Your task to perform on an android device: turn notification dots off Image 0: 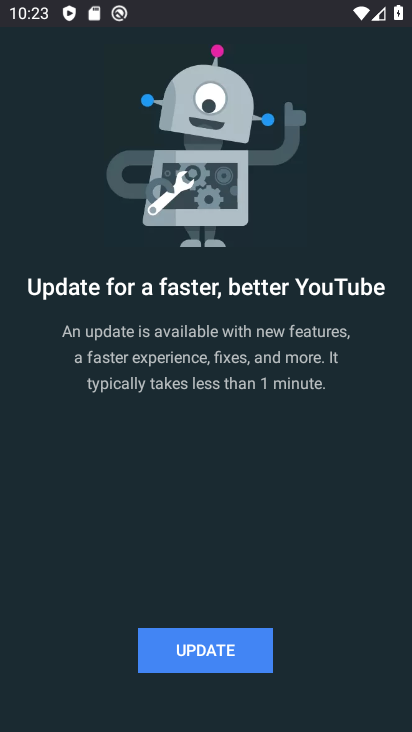
Step 0: press home button
Your task to perform on an android device: turn notification dots off Image 1: 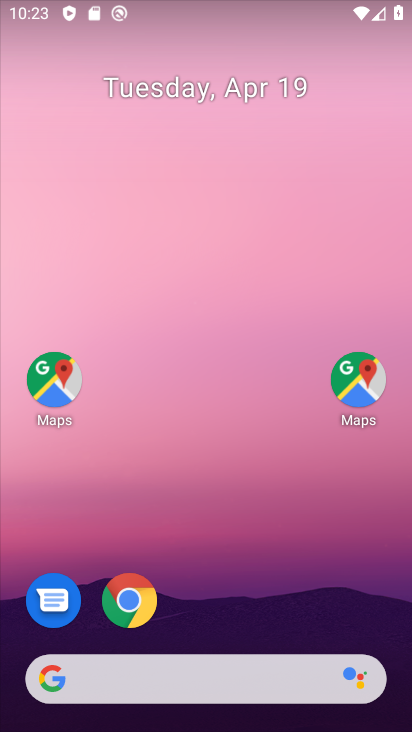
Step 1: drag from (263, 515) to (313, 219)
Your task to perform on an android device: turn notification dots off Image 2: 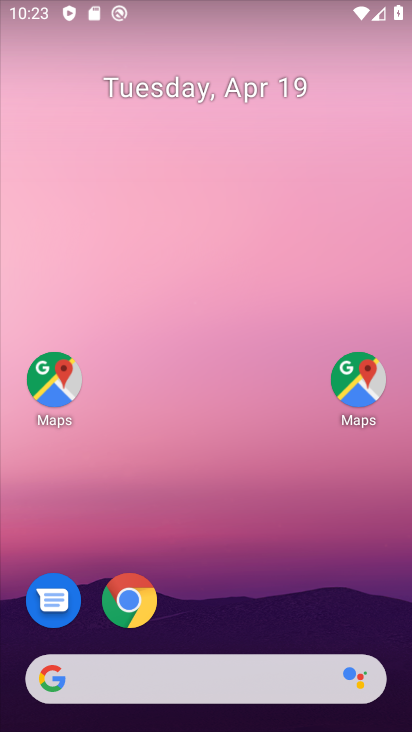
Step 2: drag from (266, 653) to (315, 21)
Your task to perform on an android device: turn notification dots off Image 3: 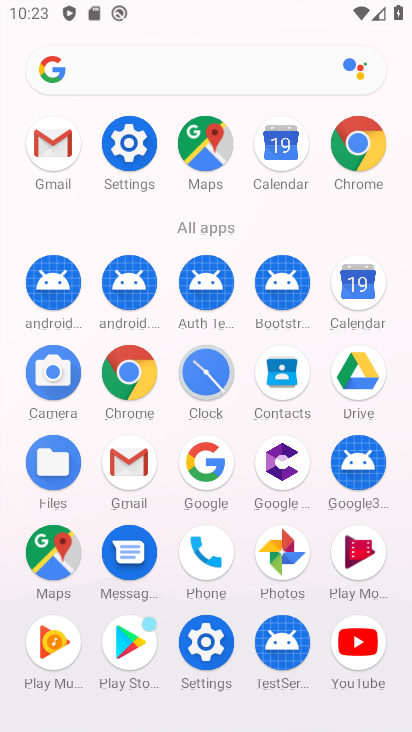
Step 3: click (225, 650)
Your task to perform on an android device: turn notification dots off Image 4: 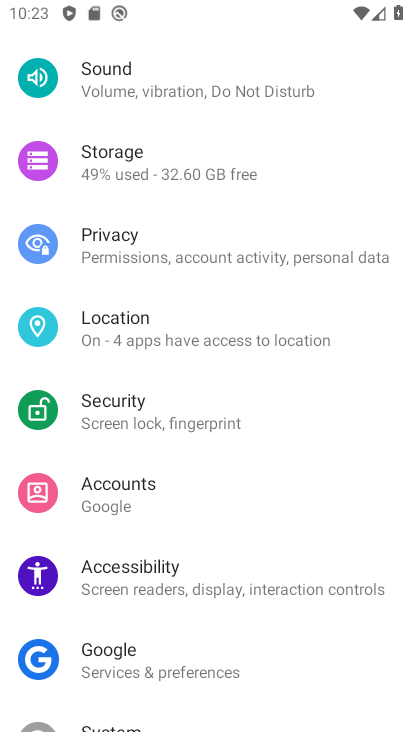
Step 4: drag from (281, 690) to (267, 726)
Your task to perform on an android device: turn notification dots off Image 5: 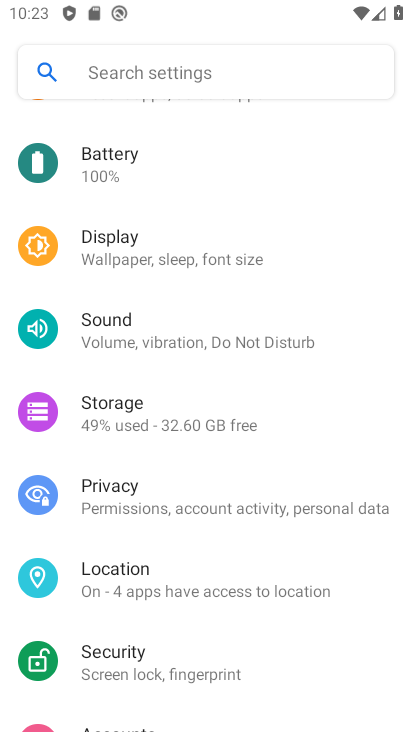
Step 5: drag from (210, 229) to (255, 620)
Your task to perform on an android device: turn notification dots off Image 6: 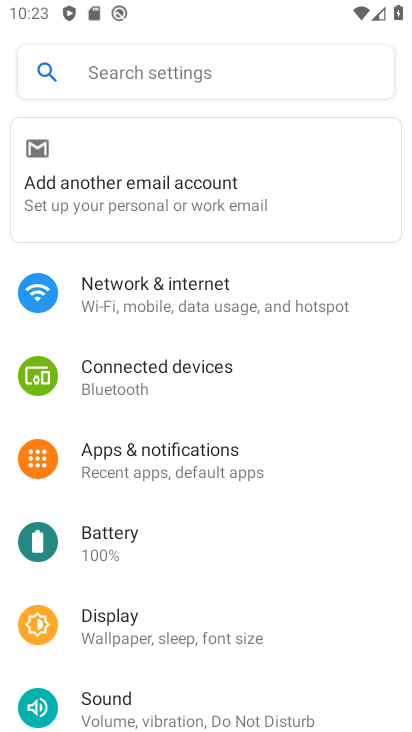
Step 6: click (166, 454)
Your task to perform on an android device: turn notification dots off Image 7: 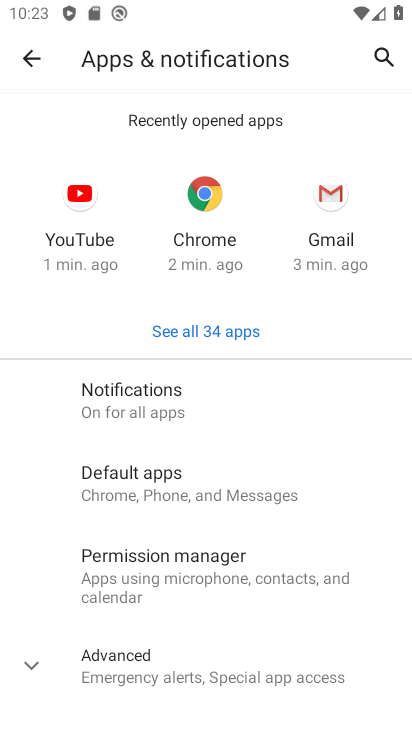
Step 7: drag from (247, 664) to (269, 343)
Your task to perform on an android device: turn notification dots off Image 8: 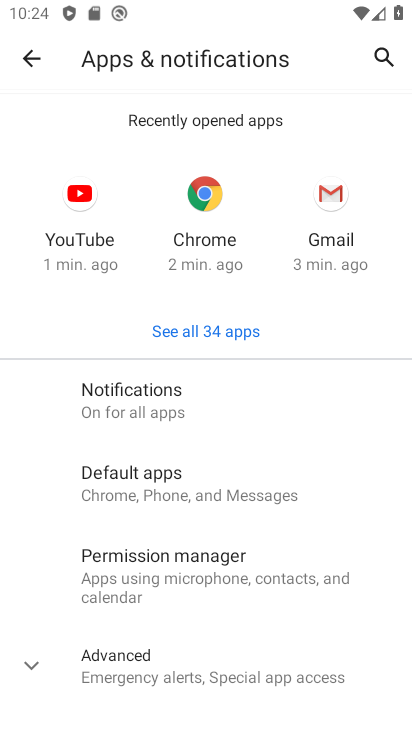
Step 8: click (171, 677)
Your task to perform on an android device: turn notification dots off Image 9: 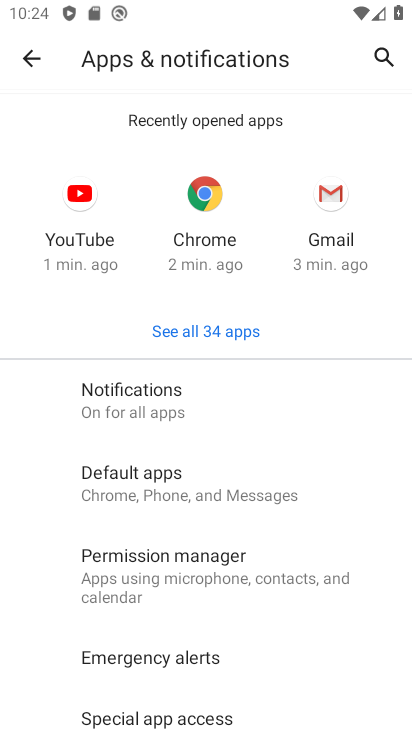
Step 9: drag from (248, 646) to (228, 423)
Your task to perform on an android device: turn notification dots off Image 10: 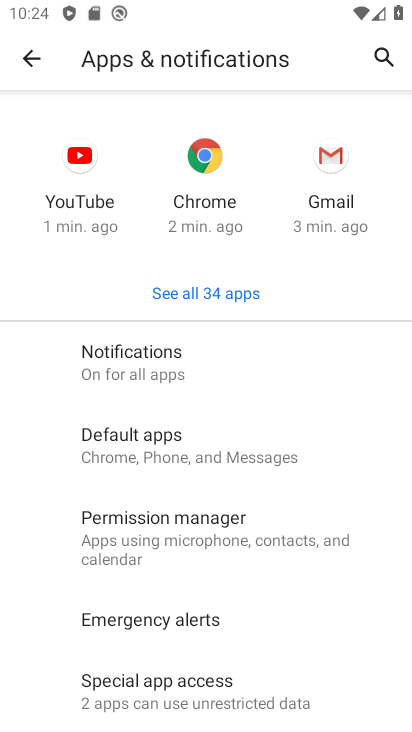
Step 10: click (180, 360)
Your task to perform on an android device: turn notification dots off Image 11: 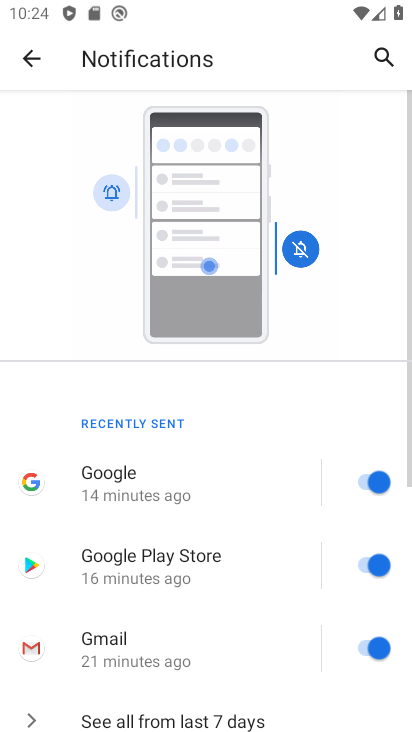
Step 11: drag from (247, 678) to (251, 263)
Your task to perform on an android device: turn notification dots off Image 12: 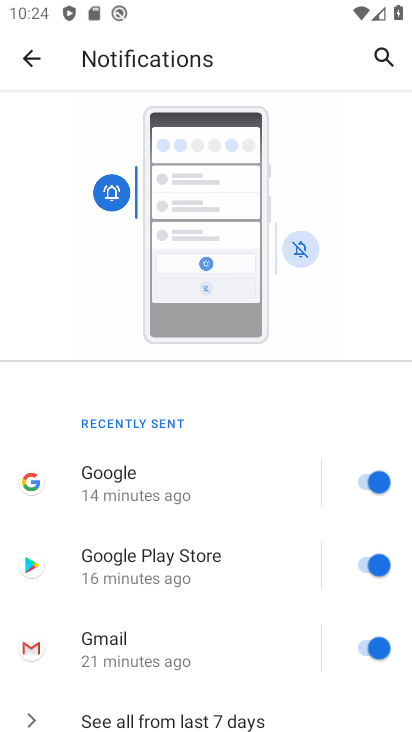
Step 12: drag from (211, 713) to (174, 347)
Your task to perform on an android device: turn notification dots off Image 13: 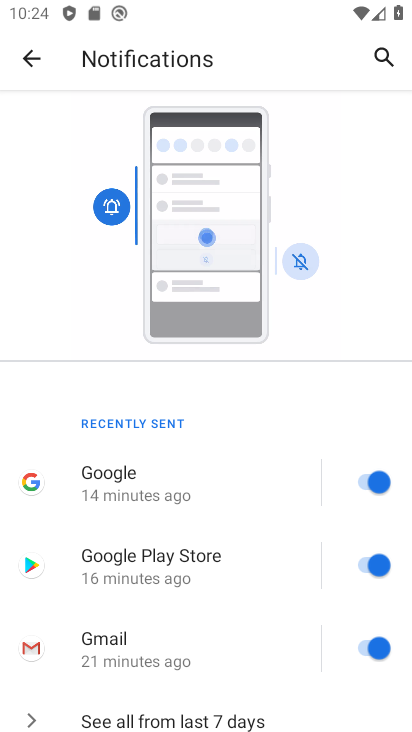
Step 13: drag from (307, 697) to (279, 204)
Your task to perform on an android device: turn notification dots off Image 14: 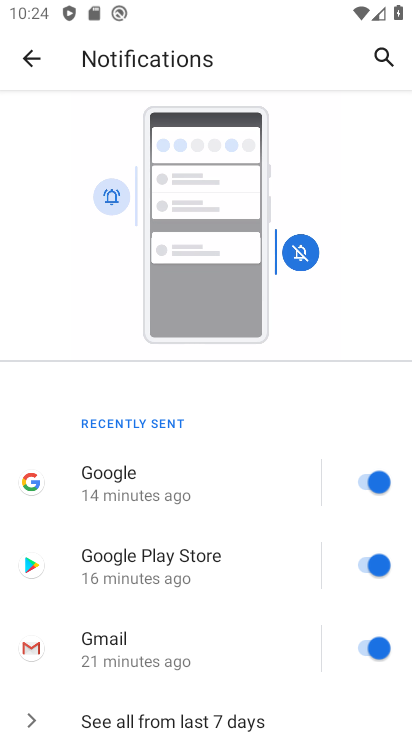
Step 14: drag from (248, 673) to (321, 150)
Your task to perform on an android device: turn notification dots off Image 15: 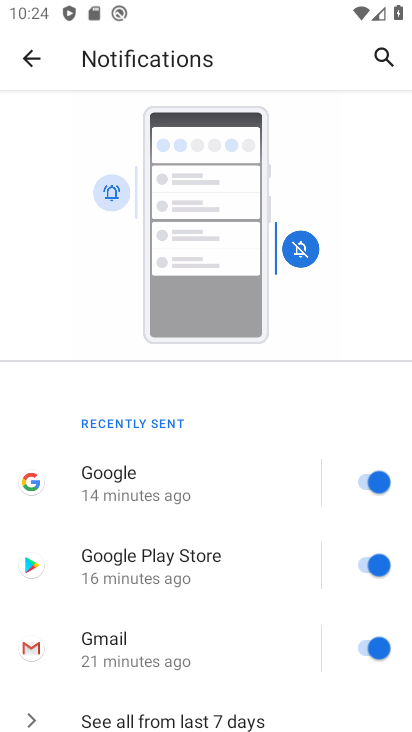
Step 15: drag from (270, 682) to (249, 283)
Your task to perform on an android device: turn notification dots off Image 16: 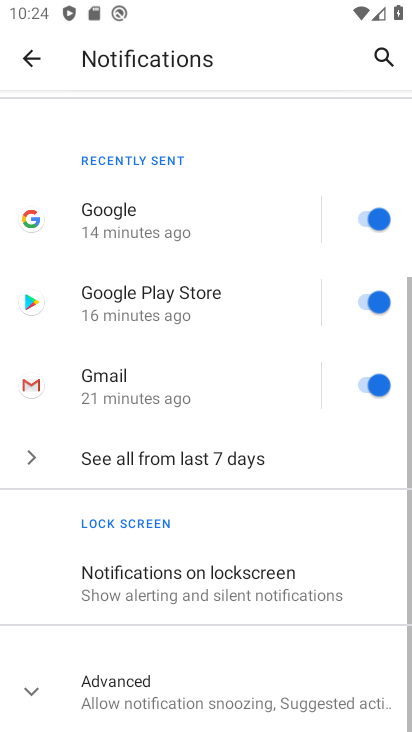
Step 16: click (253, 727)
Your task to perform on an android device: turn notification dots off Image 17: 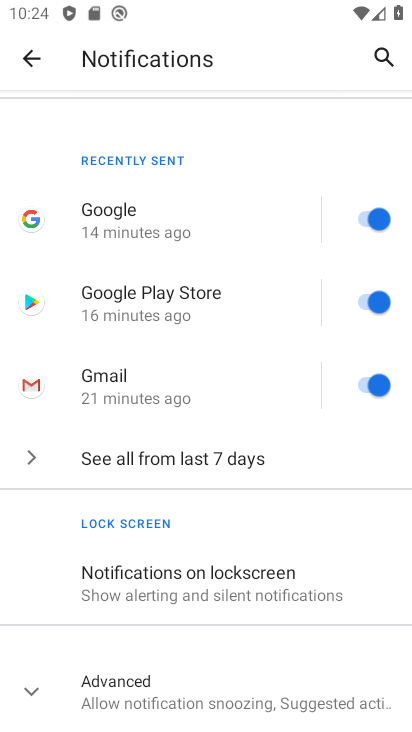
Step 17: drag from (254, 713) to (262, 544)
Your task to perform on an android device: turn notification dots off Image 18: 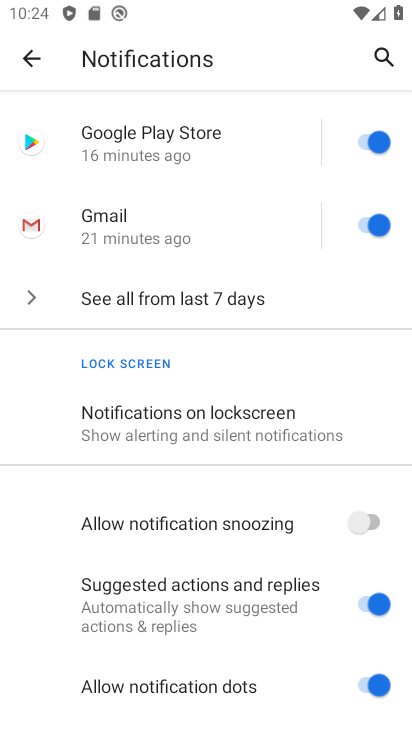
Step 18: click (380, 690)
Your task to perform on an android device: turn notification dots off Image 19: 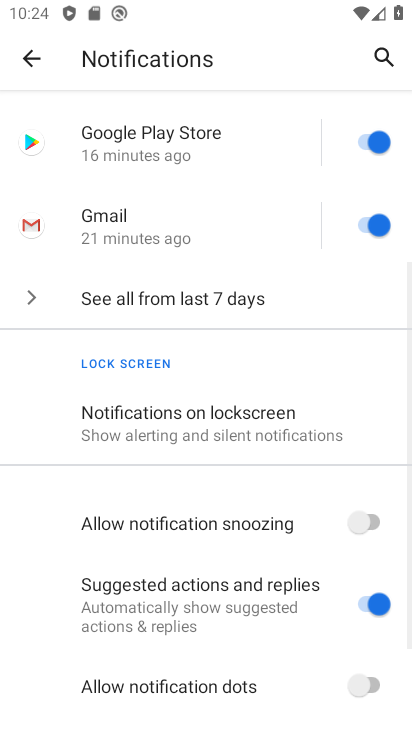
Step 19: task complete